Your task to perform on an android device: check battery use Image 0: 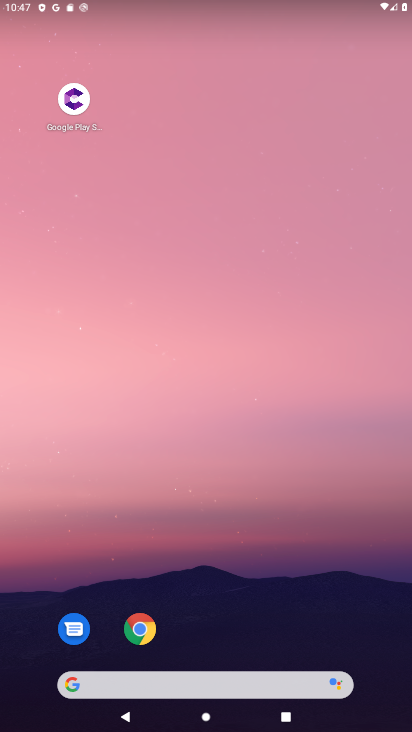
Step 0: drag from (280, 568) to (265, 302)
Your task to perform on an android device: check battery use Image 1: 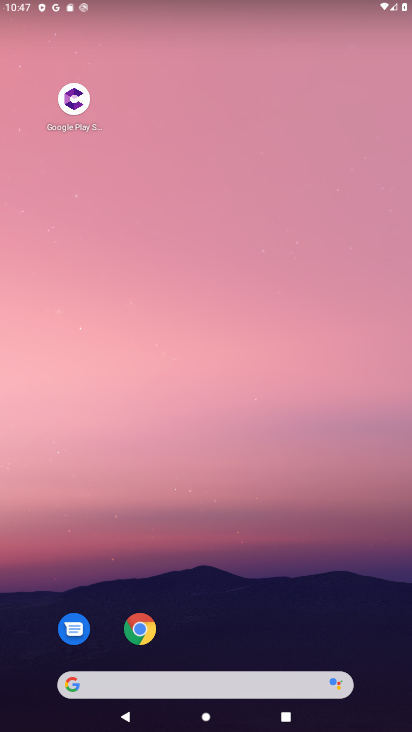
Step 1: drag from (224, 619) to (258, 231)
Your task to perform on an android device: check battery use Image 2: 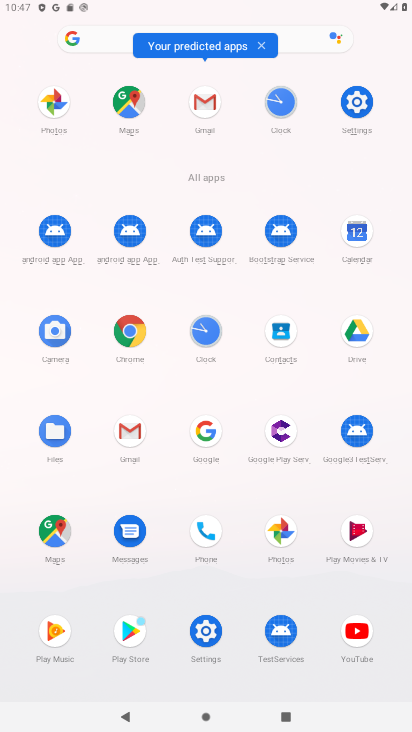
Step 2: click (344, 94)
Your task to perform on an android device: check battery use Image 3: 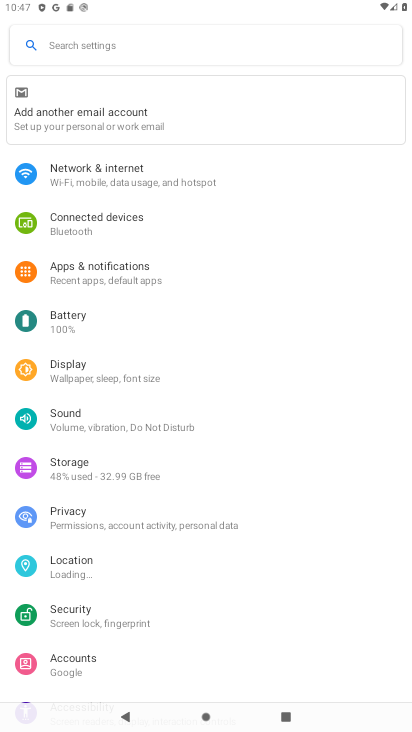
Step 3: click (91, 310)
Your task to perform on an android device: check battery use Image 4: 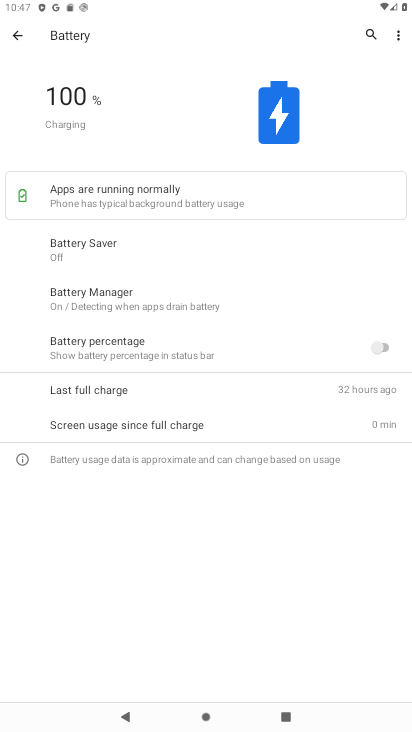
Step 4: task complete